Your task to perform on an android device: Search for the best rated headphones on Amazon Image 0: 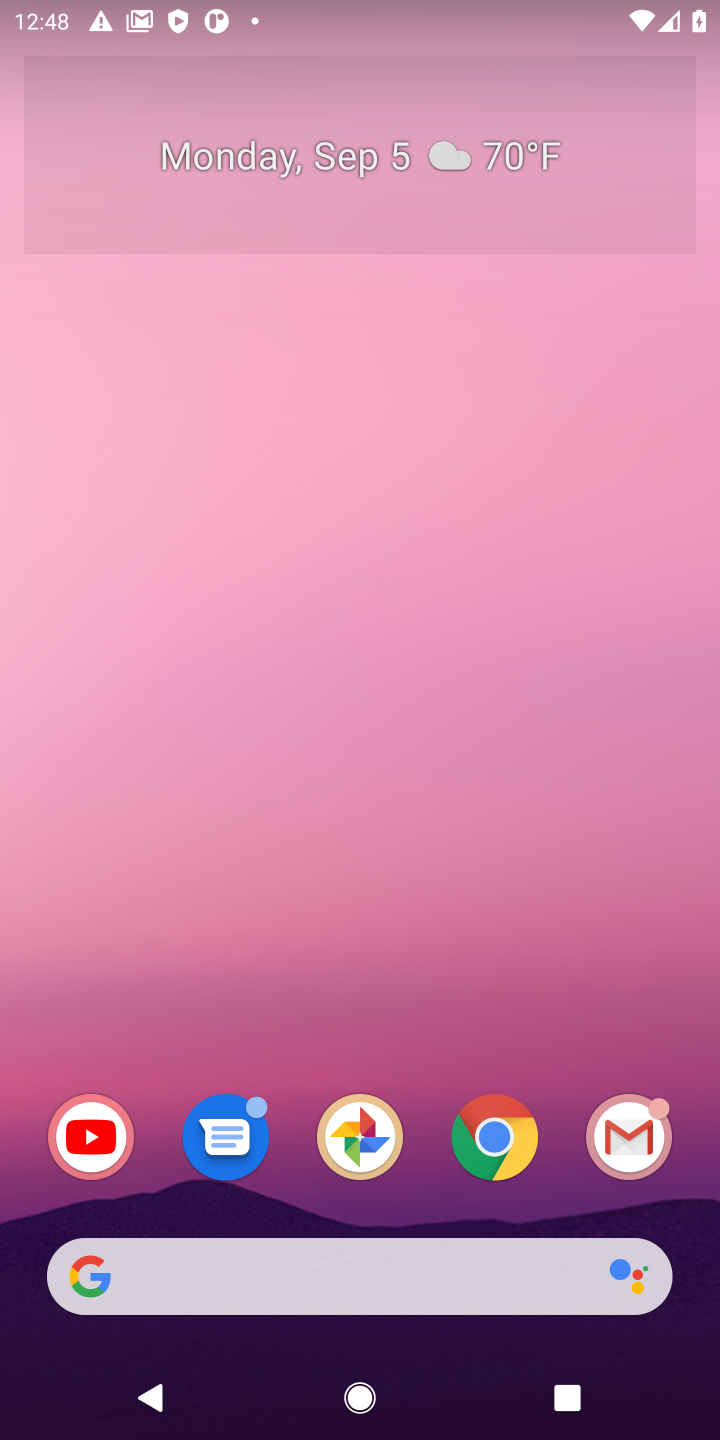
Step 0: click (482, 1163)
Your task to perform on an android device: Search for the best rated headphones on Amazon Image 1: 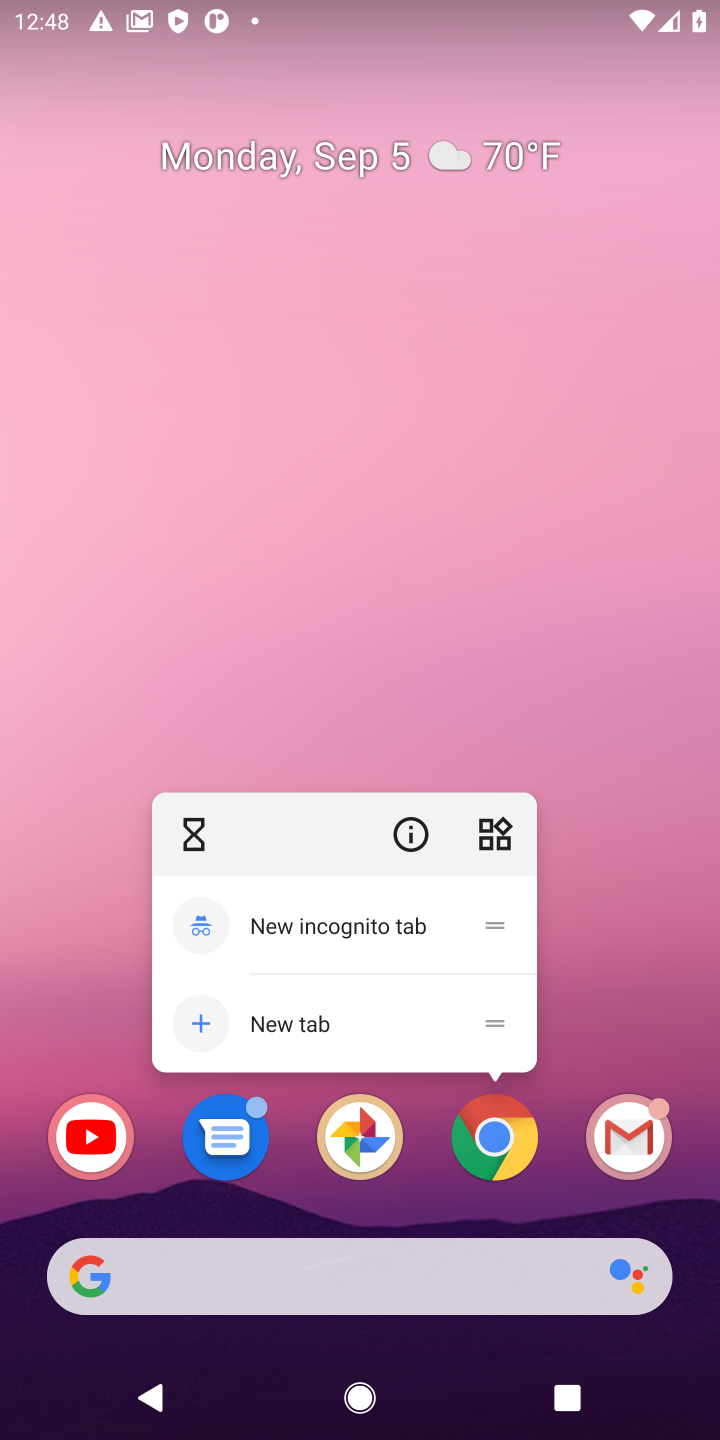
Step 1: click (482, 1162)
Your task to perform on an android device: Search for the best rated headphones on Amazon Image 2: 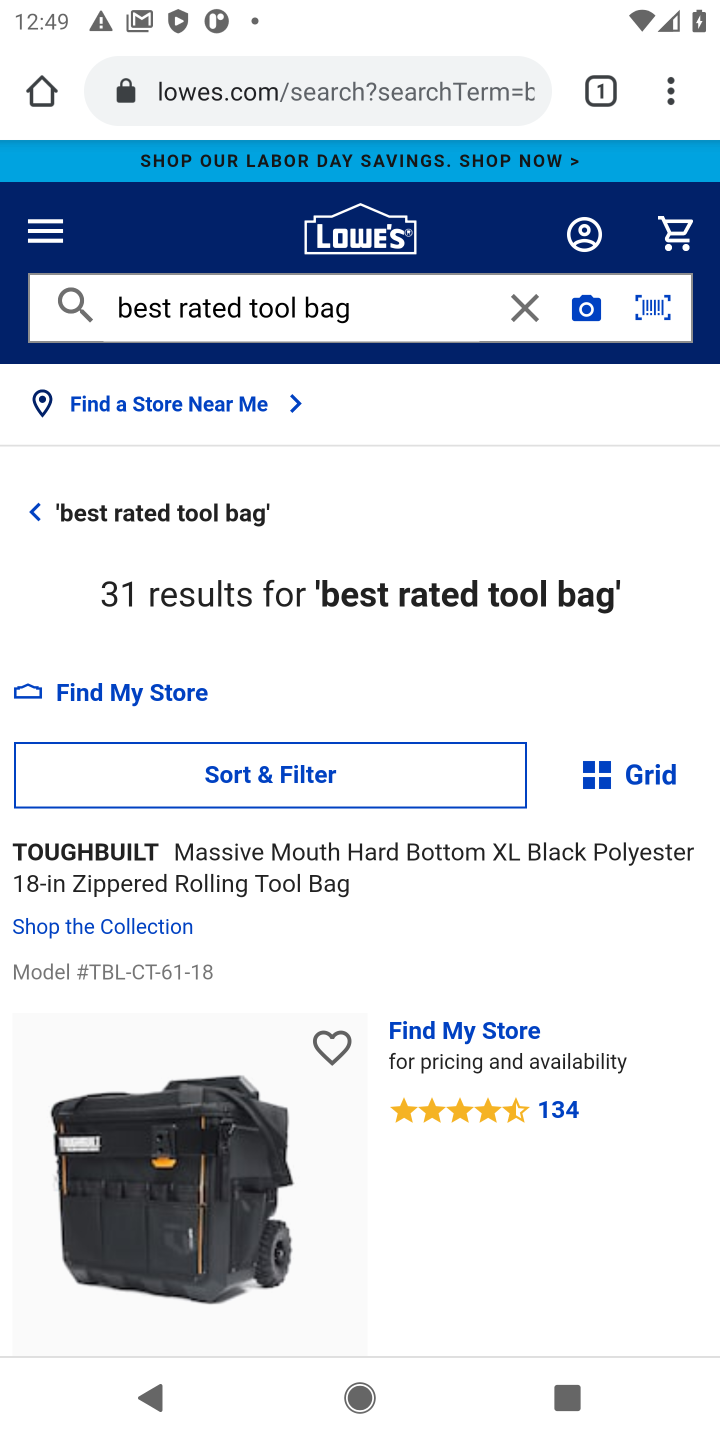
Step 2: click (456, 95)
Your task to perform on an android device: Search for the best rated headphones on Amazon Image 3: 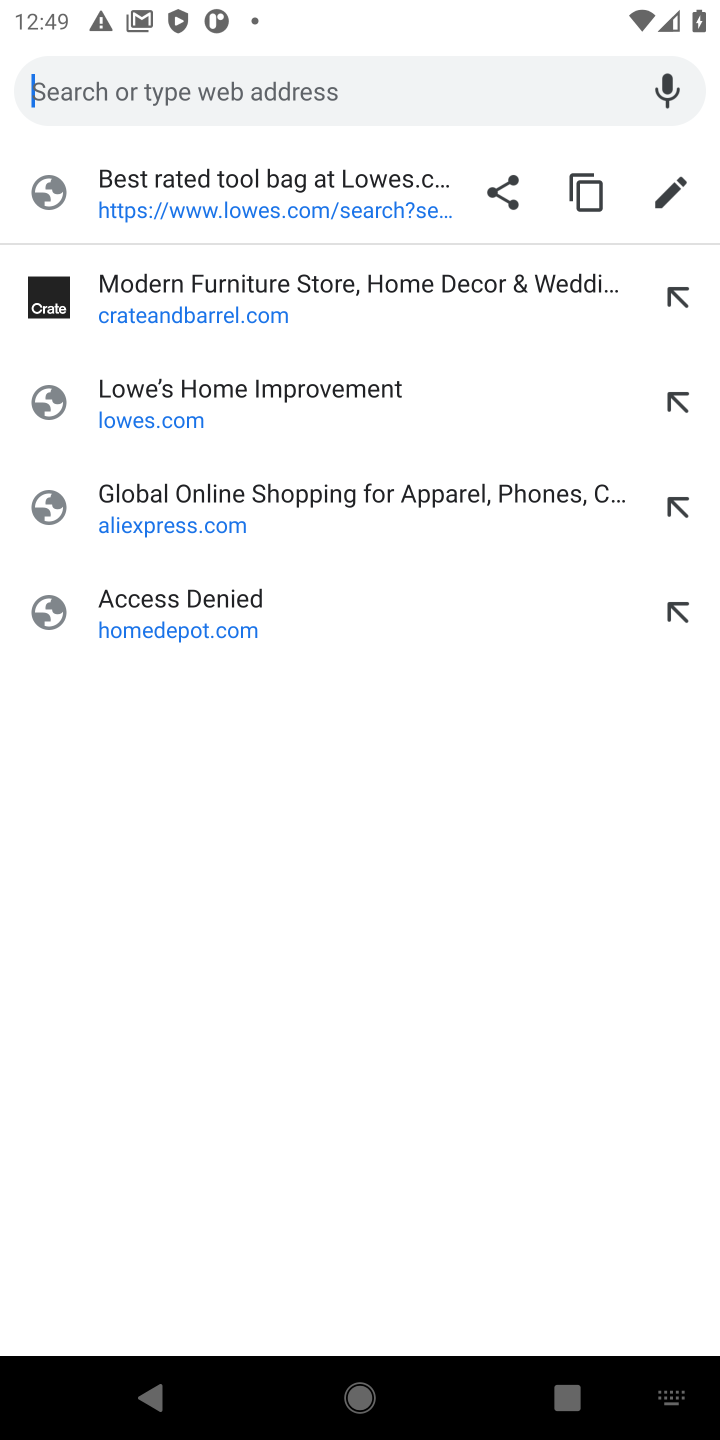
Step 3: type "amazon"
Your task to perform on an android device: Search for the best rated headphones on Amazon Image 4: 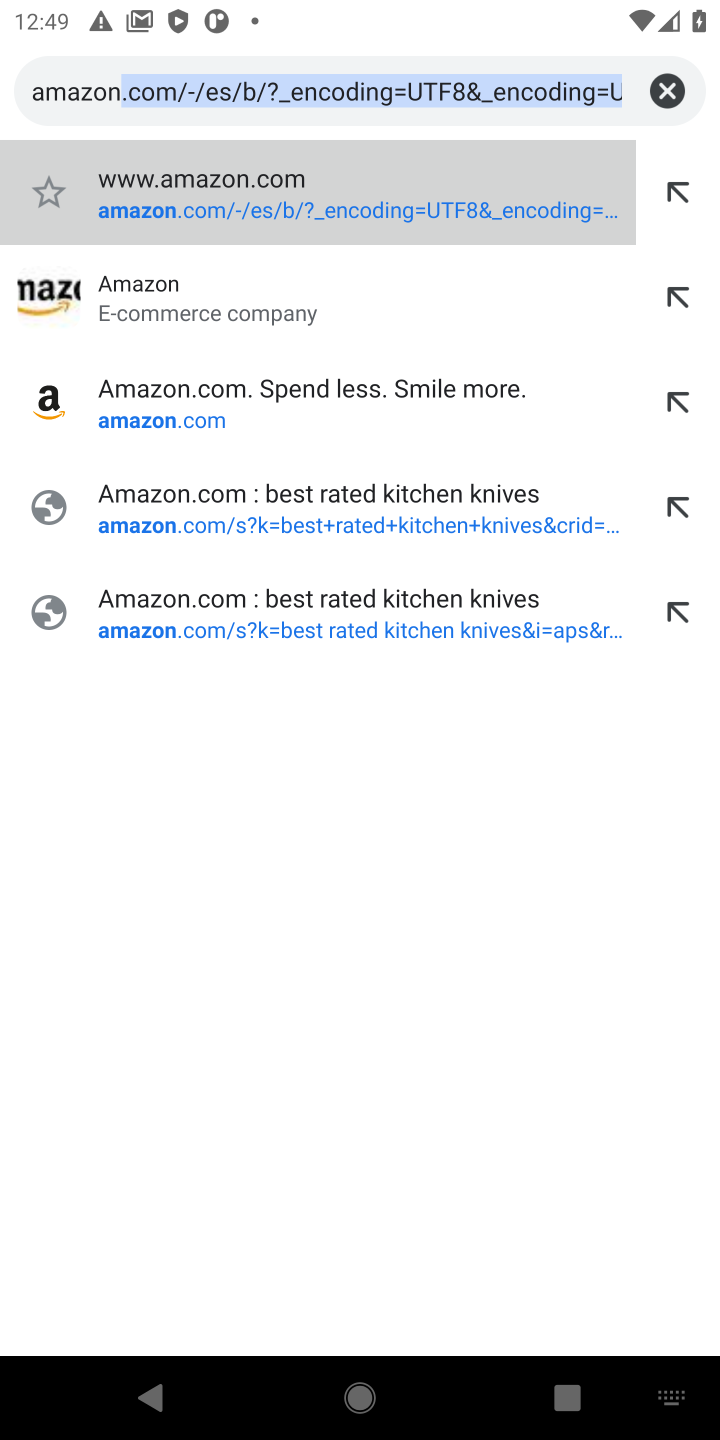
Step 4: click (183, 199)
Your task to perform on an android device: Search for the best rated headphones on Amazon Image 5: 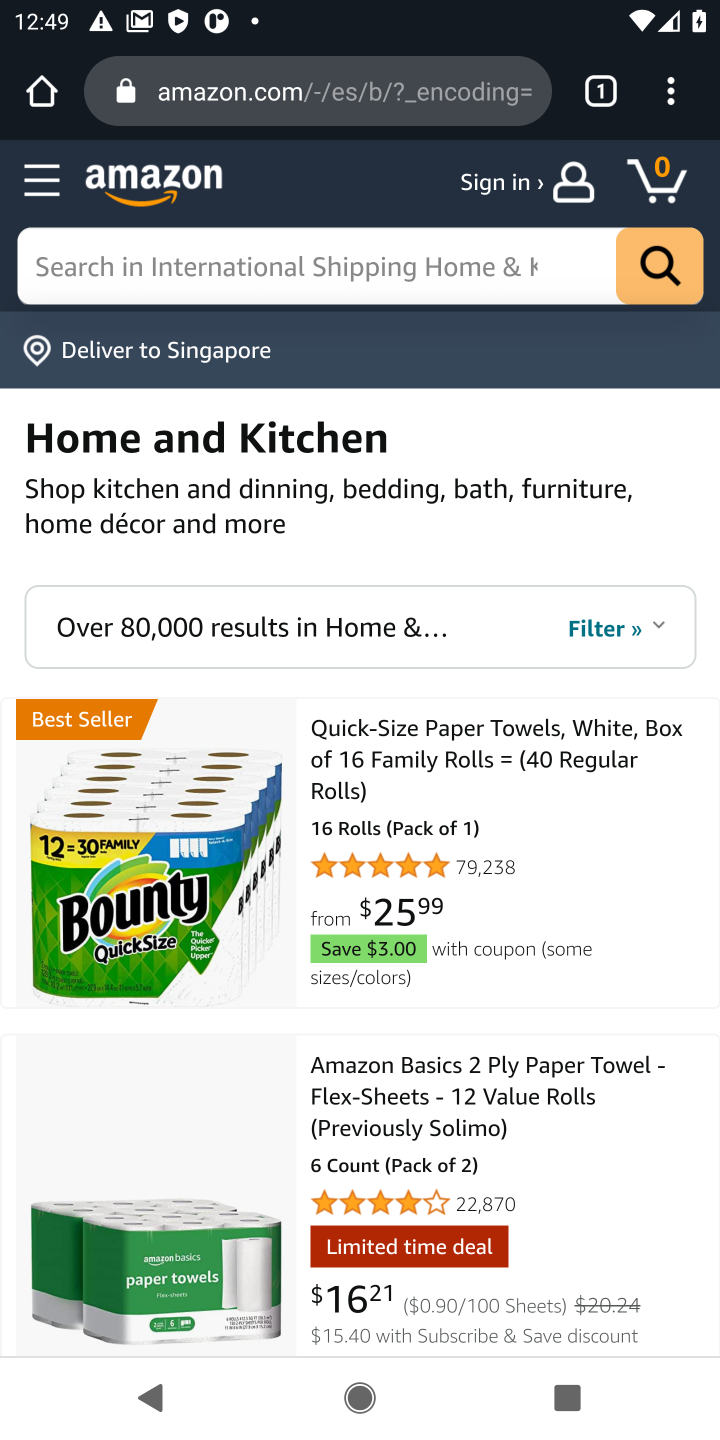
Step 5: click (369, 262)
Your task to perform on an android device: Search for the best rated headphones on Amazon Image 6: 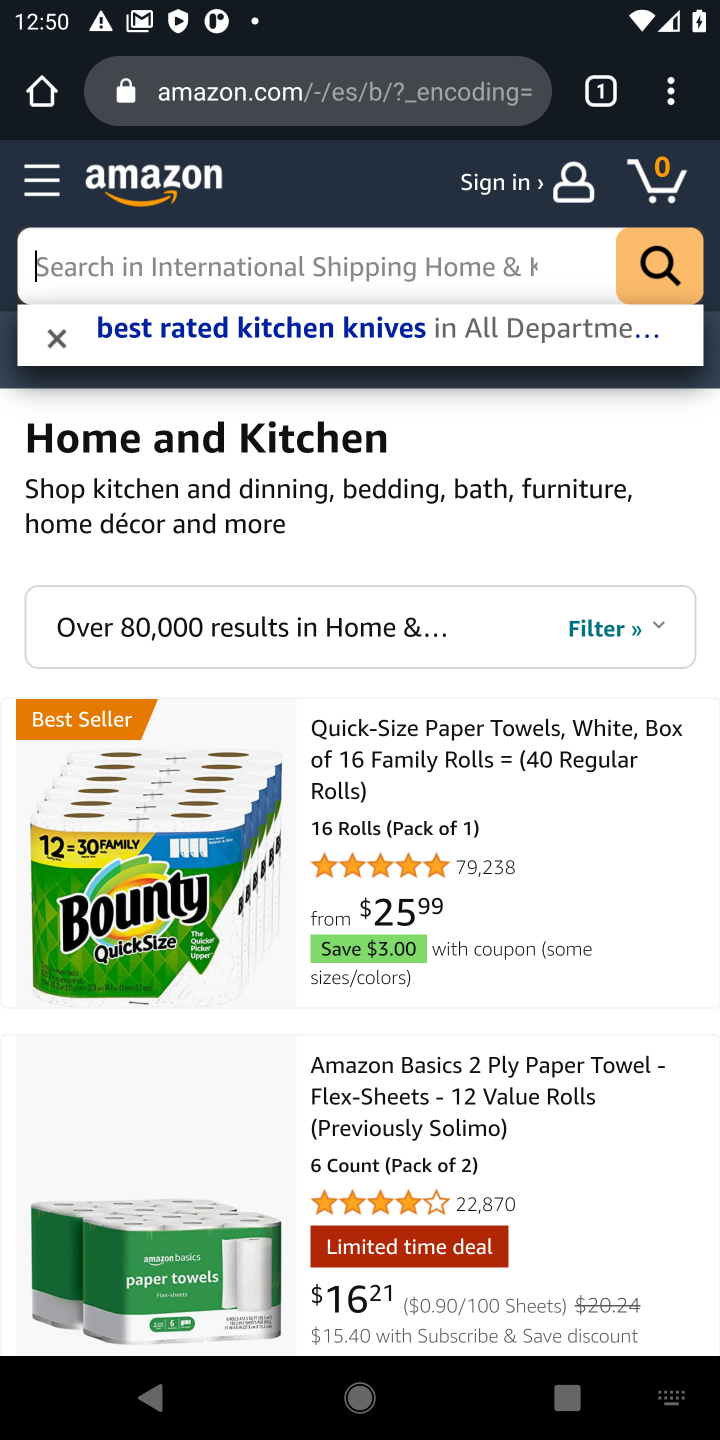
Step 6: type "best rated headphones"
Your task to perform on an android device: Search for the best rated headphones on Amazon Image 7: 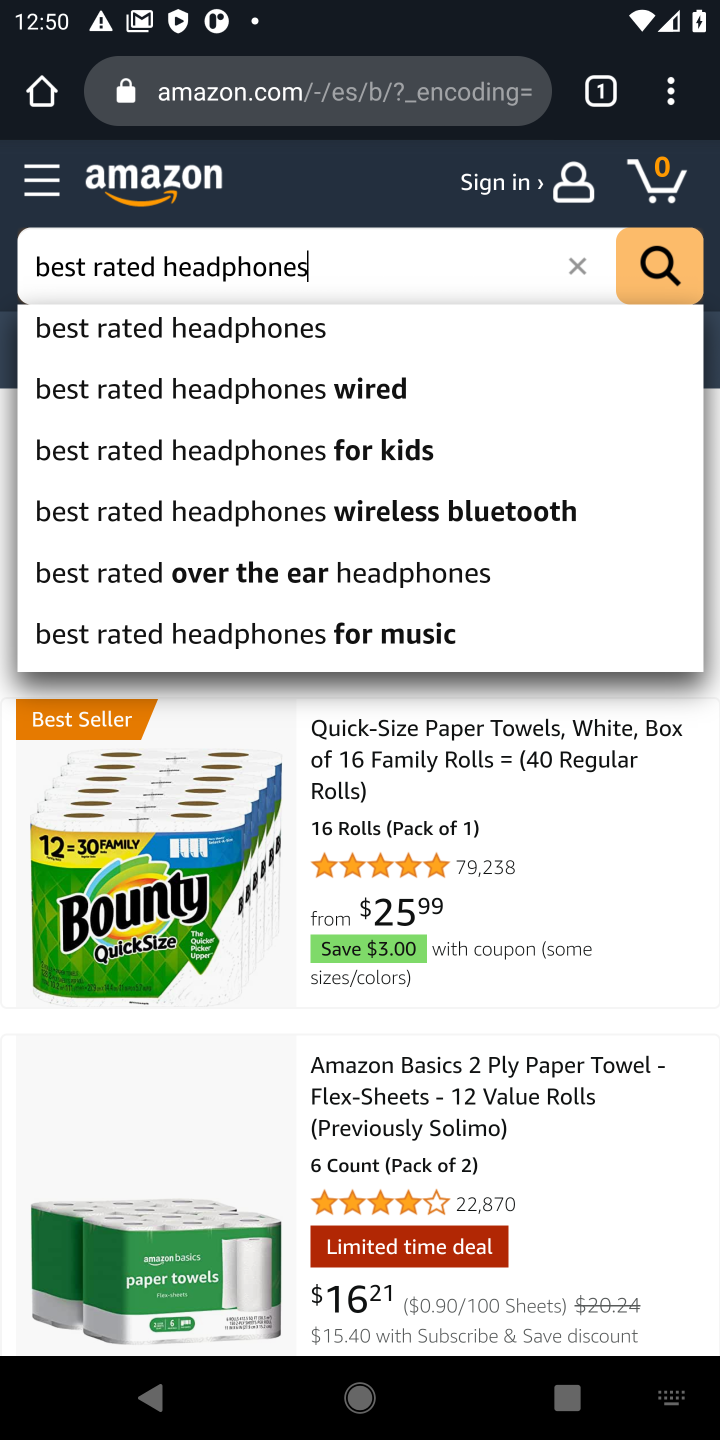
Step 7: click (334, 317)
Your task to perform on an android device: Search for the best rated headphones on Amazon Image 8: 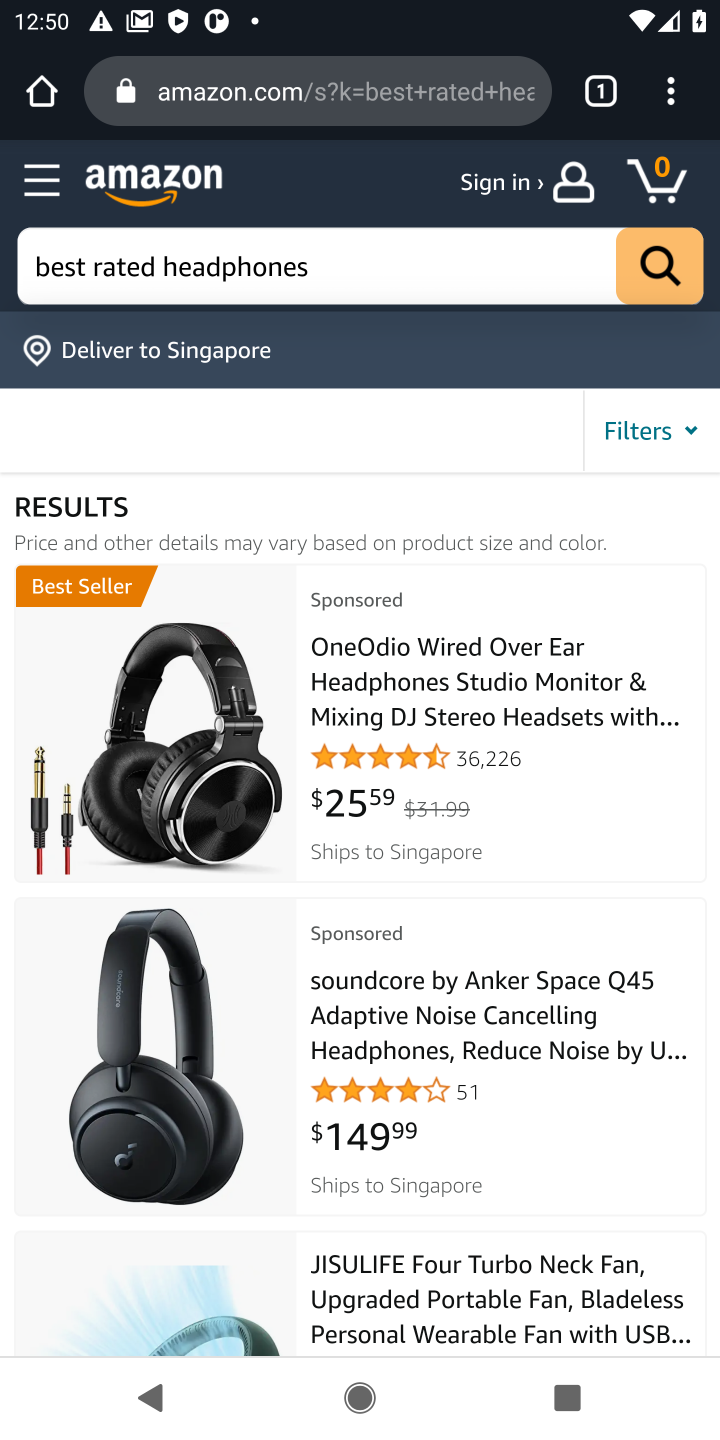
Step 8: task complete